Your task to perform on an android device: turn notification dots off Image 0: 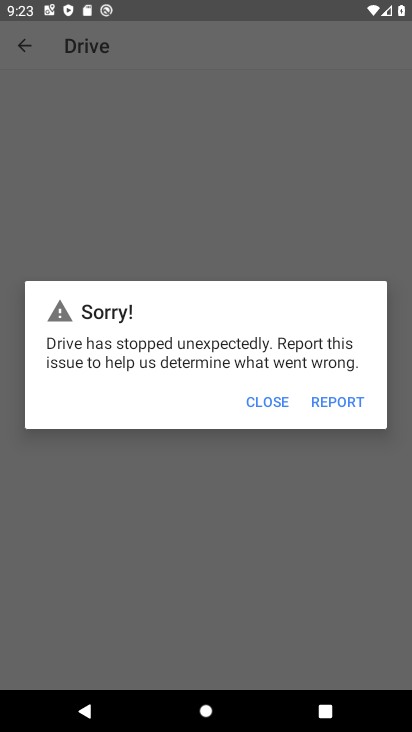
Step 0: press home button
Your task to perform on an android device: turn notification dots off Image 1: 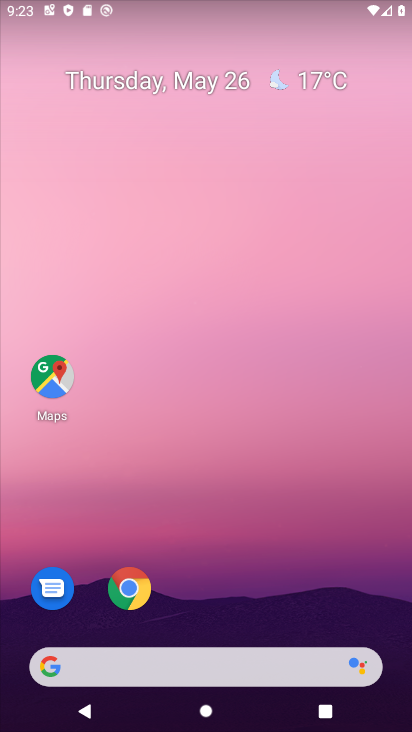
Step 1: drag from (374, 619) to (326, 153)
Your task to perform on an android device: turn notification dots off Image 2: 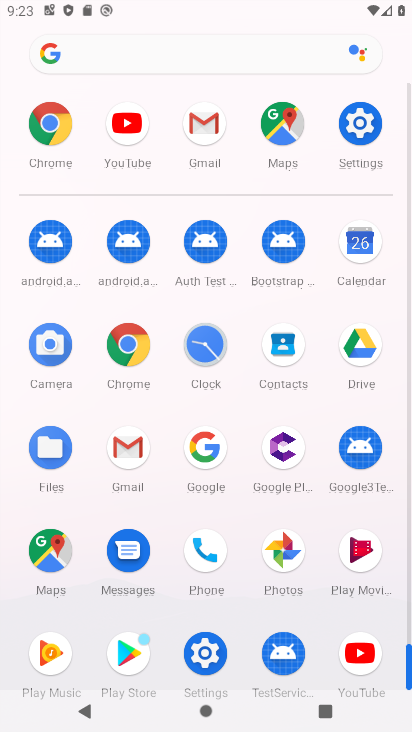
Step 2: click (204, 654)
Your task to perform on an android device: turn notification dots off Image 3: 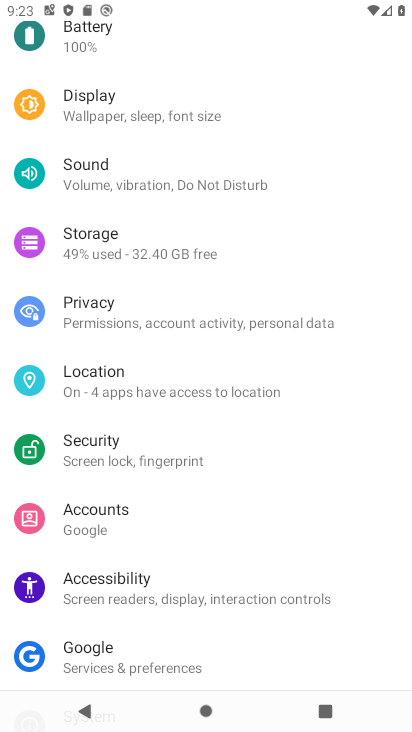
Step 3: drag from (319, 144) to (317, 550)
Your task to perform on an android device: turn notification dots off Image 4: 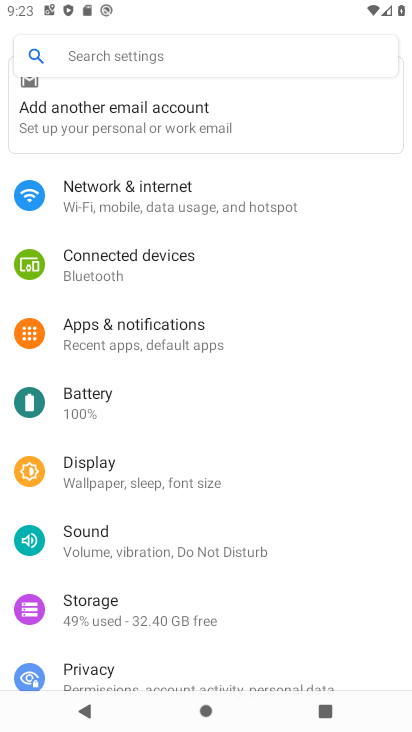
Step 4: drag from (302, 562) to (284, 232)
Your task to perform on an android device: turn notification dots off Image 5: 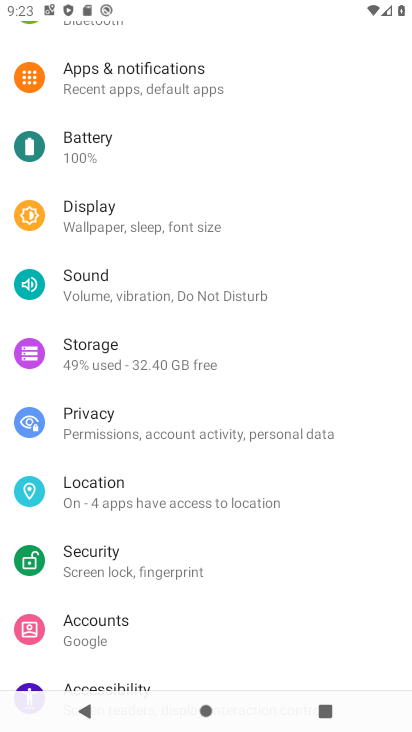
Step 5: click (106, 93)
Your task to perform on an android device: turn notification dots off Image 6: 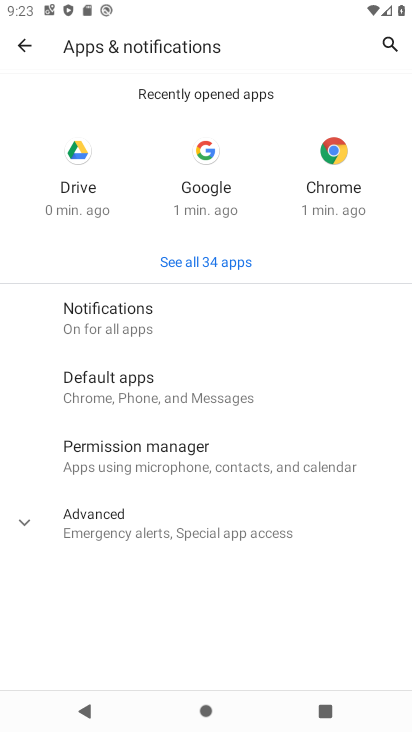
Step 6: click (114, 292)
Your task to perform on an android device: turn notification dots off Image 7: 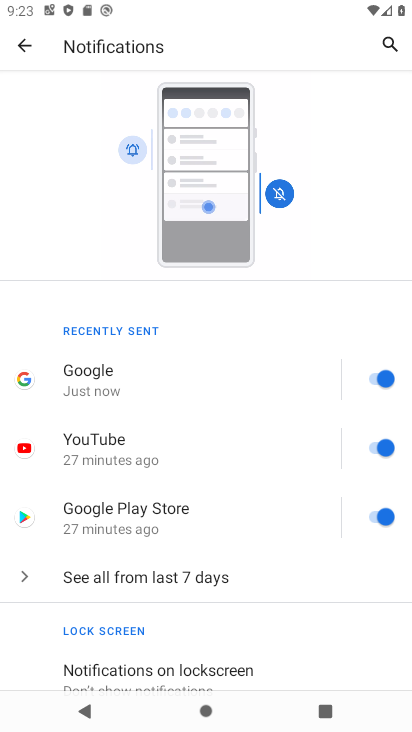
Step 7: drag from (227, 624) to (202, 84)
Your task to perform on an android device: turn notification dots off Image 8: 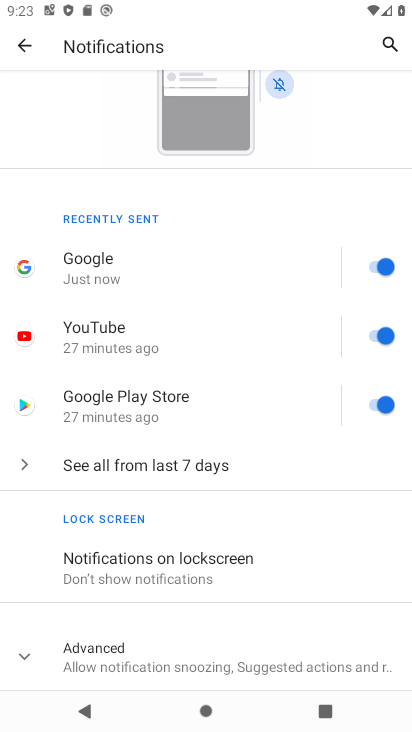
Step 8: click (19, 660)
Your task to perform on an android device: turn notification dots off Image 9: 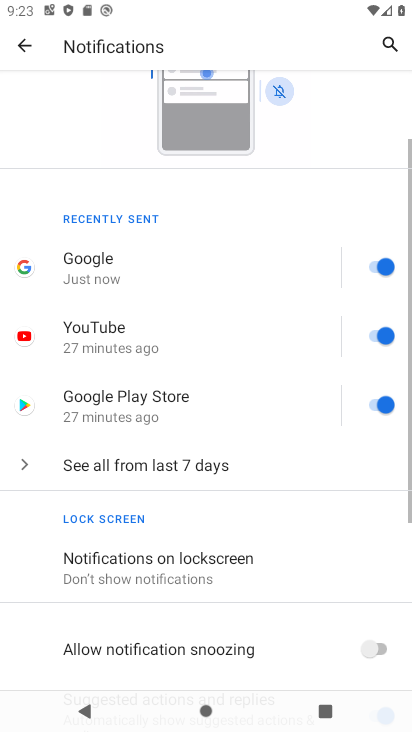
Step 9: drag from (286, 636) to (267, 135)
Your task to perform on an android device: turn notification dots off Image 10: 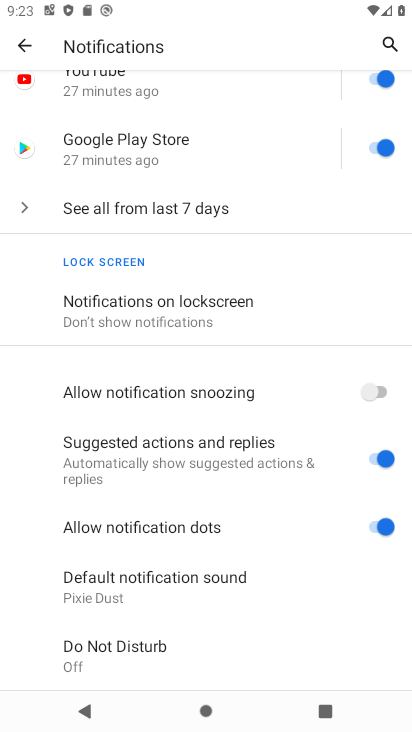
Step 10: click (370, 529)
Your task to perform on an android device: turn notification dots off Image 11: 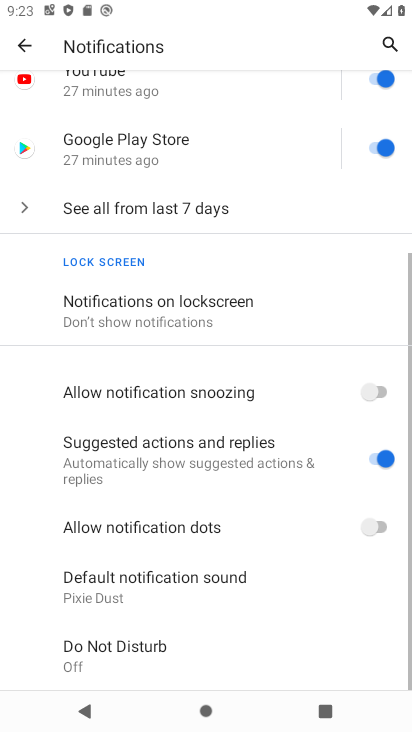
Step 11: task complete